Your task to perform on an android device: toggle javascript in the chrome app Image 0: 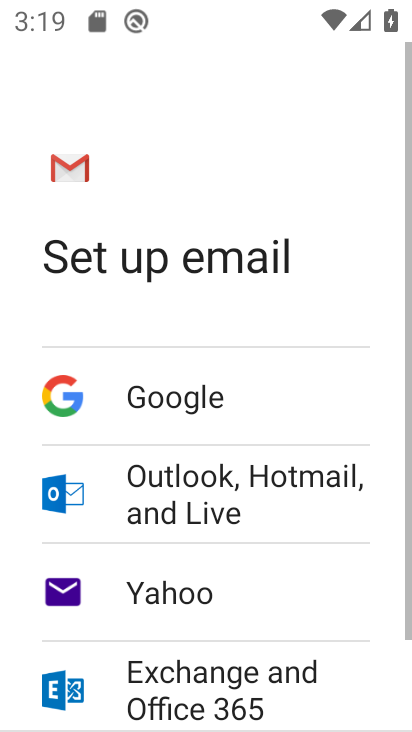
Step 0: press home button
Your task to perform on an android device: toggle javascript in the chrome app Image 1: 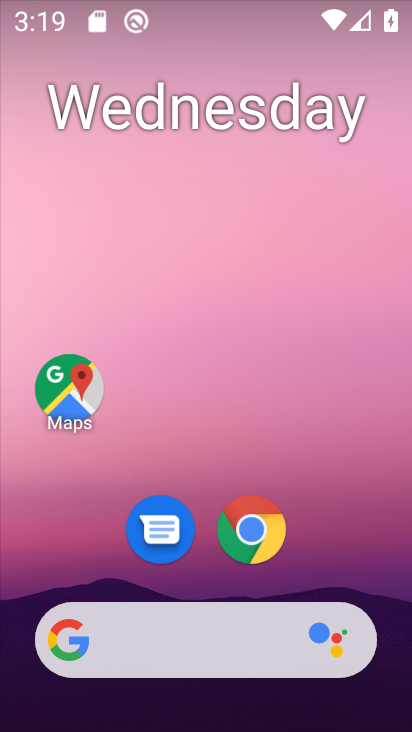
Step 1: click (240, 547)
Your task to perform on an android device: toggle javascript in the chrome app Image 2: 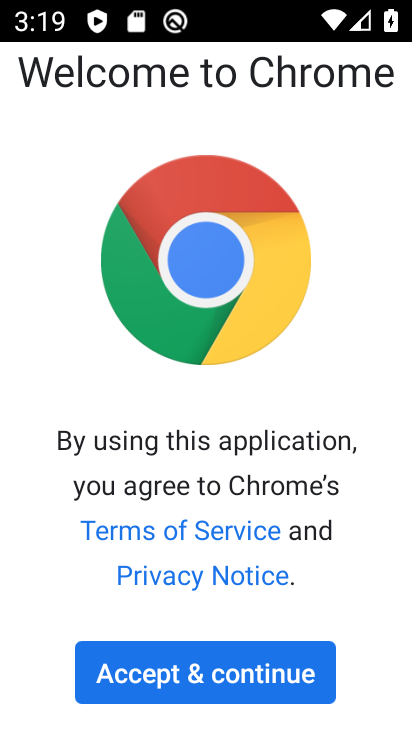
Step 2: click (226, 667)
Your task to perform on an android device: toggle javascript in the chrome app Image 3: 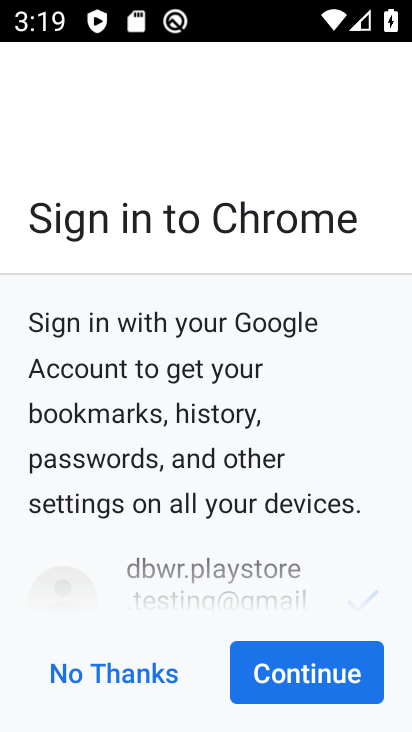
Step 3: click (320, 707)
Your task to perform on an android device: toggle javascript in the chrome app Image 4: 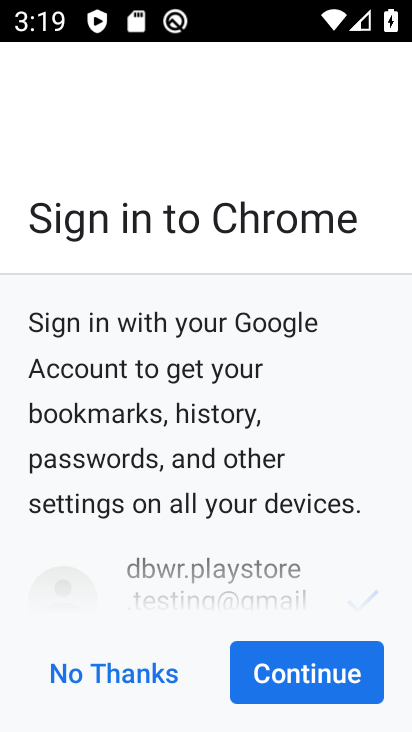
Step 4: click (358, 670)
Your task to perform on an android device: toggle javascript in the chrome app Image 5: 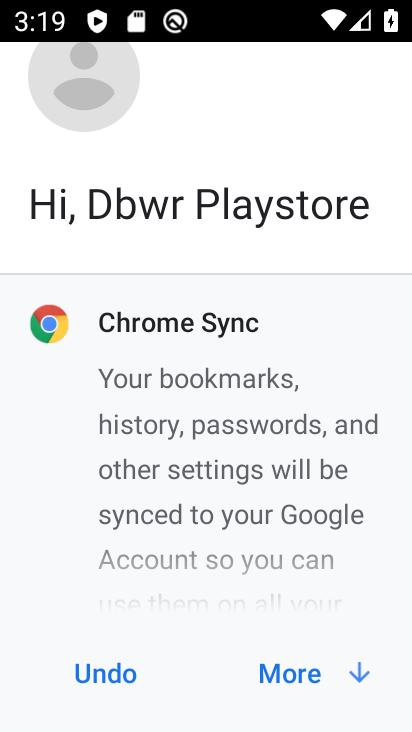
Step 5: click (339, 677)
Your task to perform on an android device: toggle javascript in the chrome app Image 6: 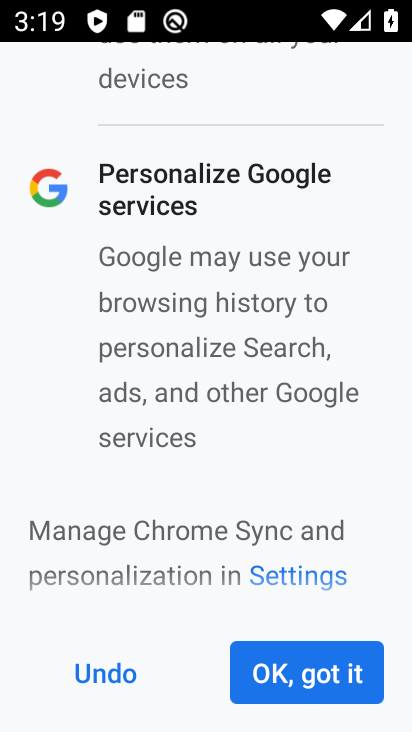
Step 6: click (338, 678)
Your task to perform on an android device: toggle javascript in the chrome app Image 7: 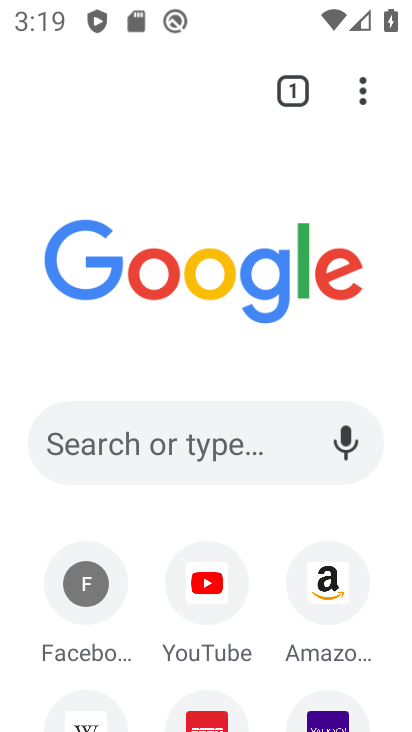
Step 7: drag from (365, 91) to (191, 574)
Your task to perform on an android device: toggle javascript in the chrome app Image 8: 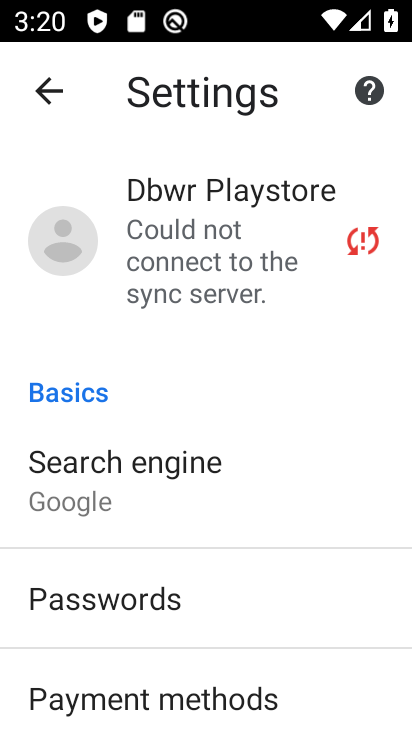
Step 8: drag from (126, 648) to (260, 209)
Your task to perform on an android device: toggle javascript in the chrome app Image 9: 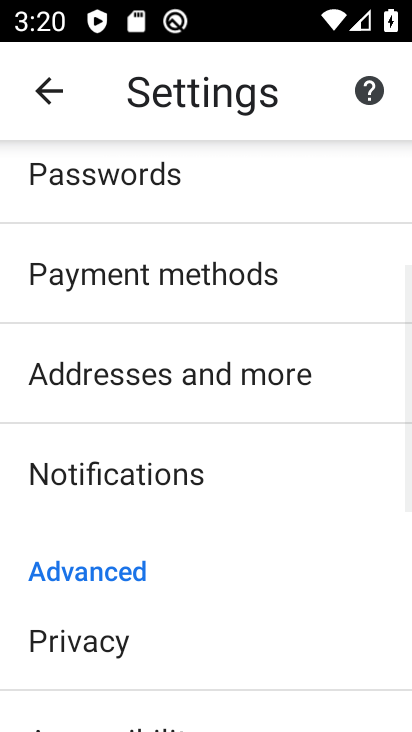
Step 9: drag from (160, 515) to (240, 263)
Your task to perform on an android device: toggle javascript in the chrome app Image 10: 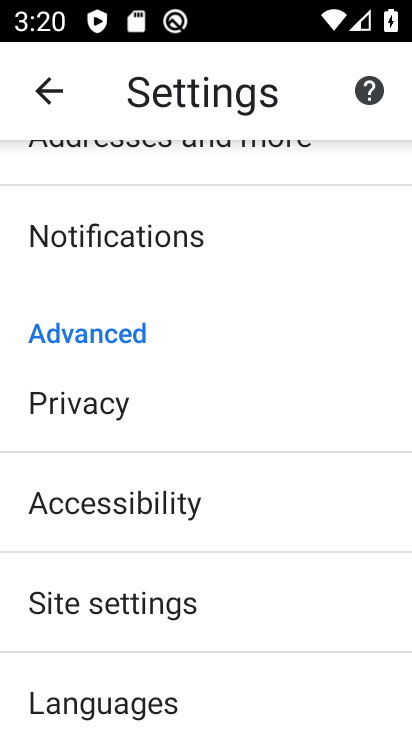
Step 10: click (120, 597)
Your task to perform on an android device: toggle javascript in the chrome app Image 11: 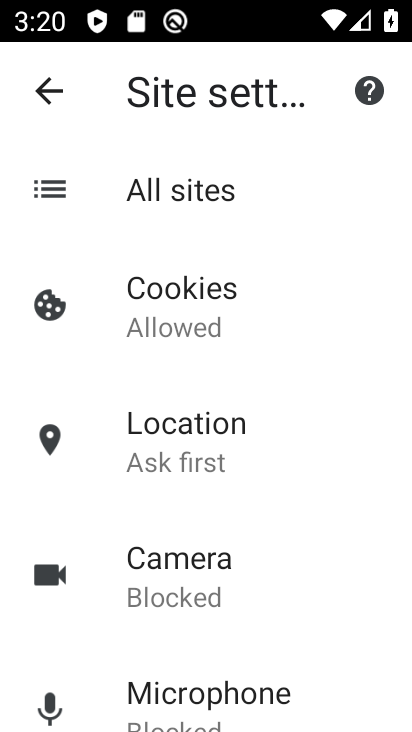
Step 11: drag from (175, 622) to (275, 272)
Your task to perform on an android device: toggle javascript in the chrome app Image 12: 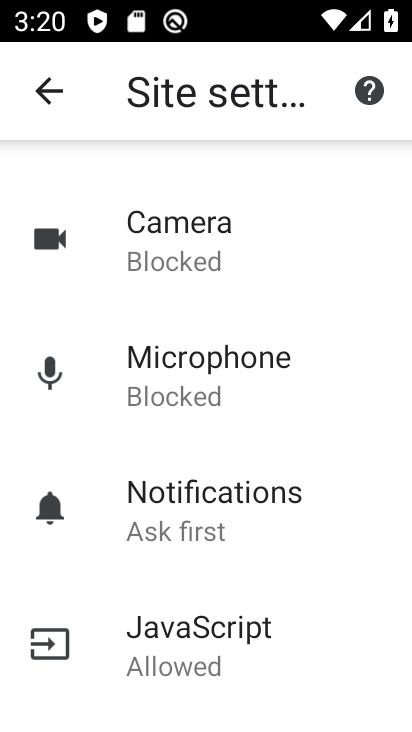
Step 12: click (229, 658)
Your task to perform on an android device: toggle javascript in the chrome app Image 13: 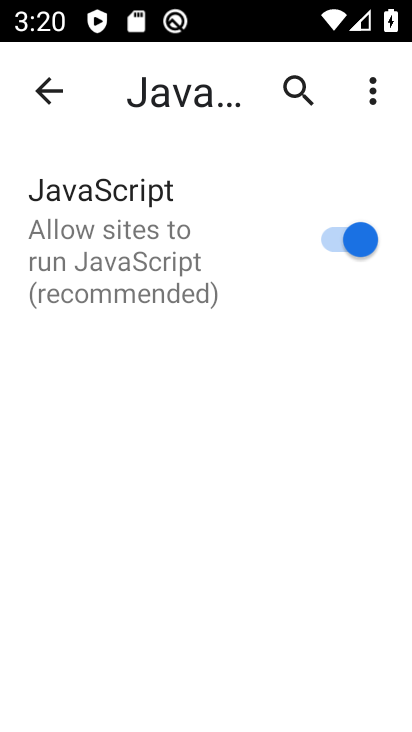
Step 13: click (317, 220)
Your task to perform on an android device: toggle javascript in the chrome app Image 14: 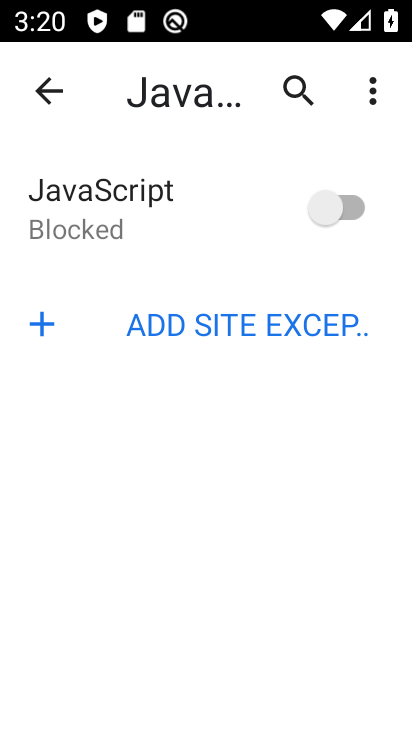
Step 14: task complete